Your task to perform on an android device: Open Youtube and go to the subscriptions tab Image 0: 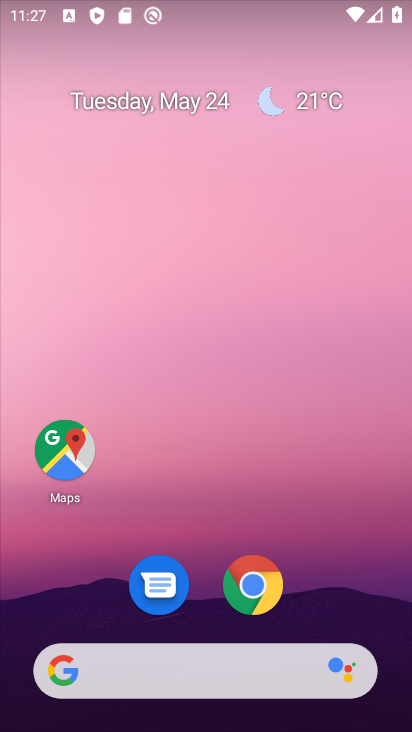
Step 0: drag from (313, 549) to (336, 22)
Your task to perform on an android device: Open Youtube and go to the subscriptions tab Image 1: 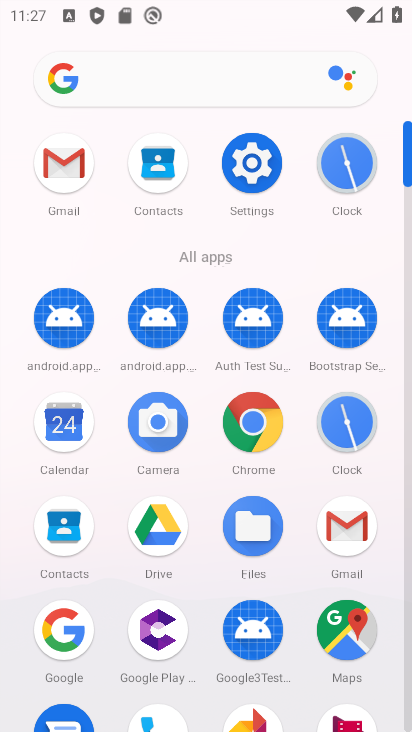
Step 1: drag from (310, 540) to (339, 113)
Your task to perform on an android device: Open Youtube and go to the subscriptions tab Image 2: 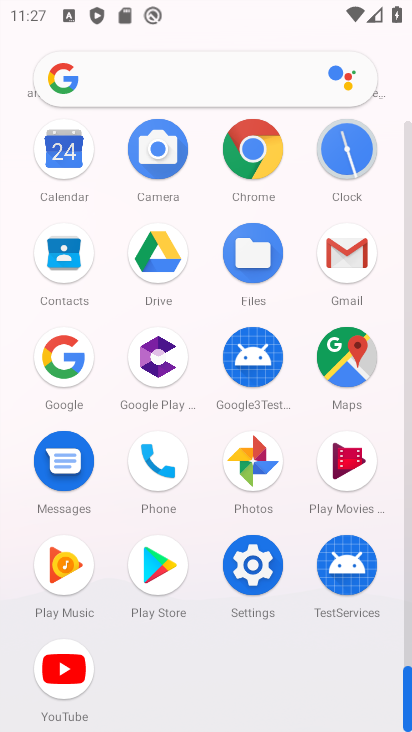
Step 2: click (71, 672)
Your task to perform on an android device: Open Youtube and go to the subscriptions tab Image 3: 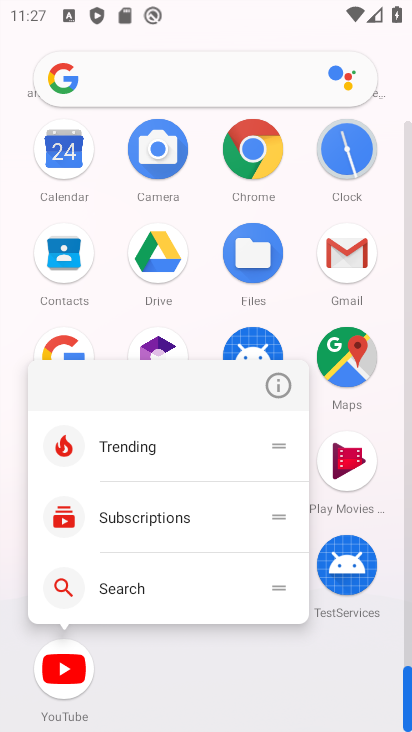
Step 3: click (71, 669)
Your task to perform on an android device: Open Youtube and go to the subscriptions tab Image 4: 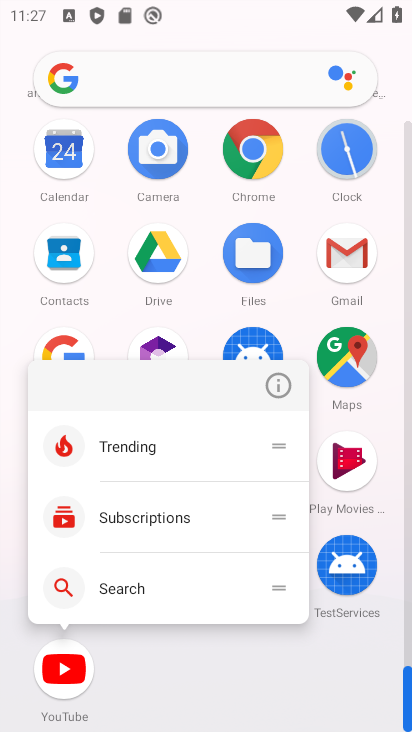
Step 4: click (71, 669)
Your task to perform on an android device: Open Youtube and go to the subscriptions tab Image 5: 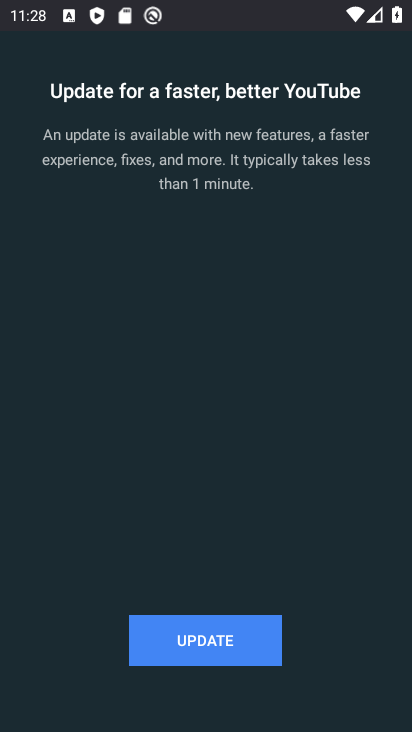
Step 5: click (157, 639)
Your task to perform on an android device: Open Youtube and go to the subscriptions tab Image 6: 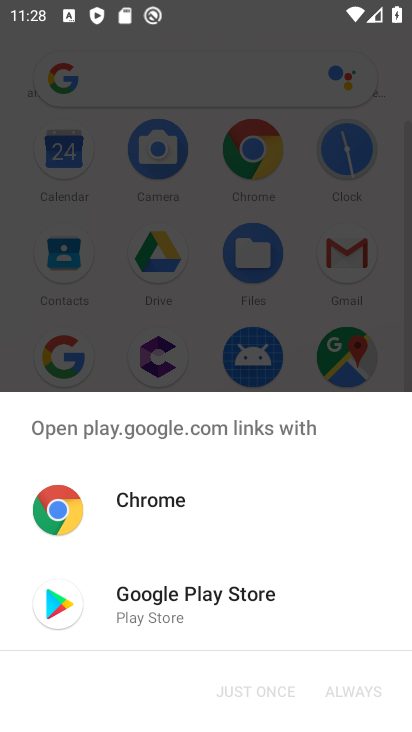
Step 6: click (167, 609)
Your task to perform on an android device: Open Youtube and go to the subscriptions tab Image 7: 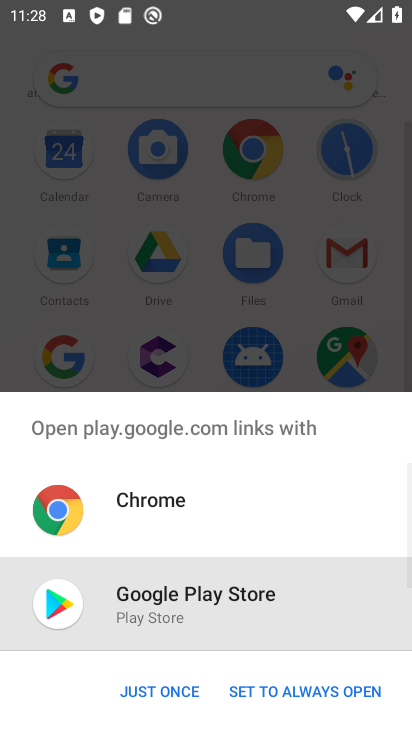
Step 7: click (162, 688)
Your task to perform on an android device: Open Youtube and go to the subscriptions tab Image 8: 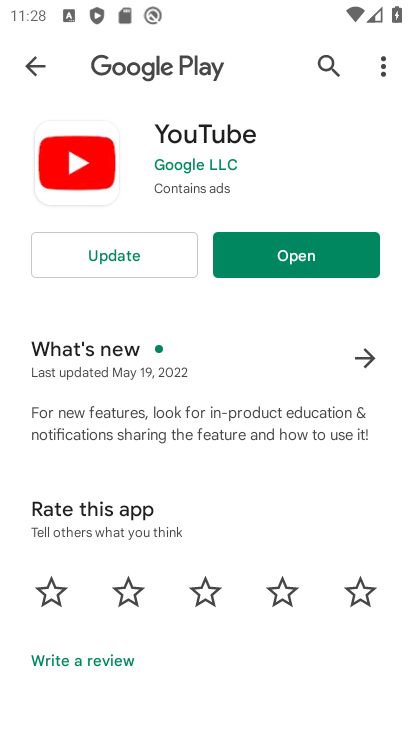
Step 8: click (150, 255)
Your task to perform on an android device: Open Youtube and go to the subscriptions tab Image 9: 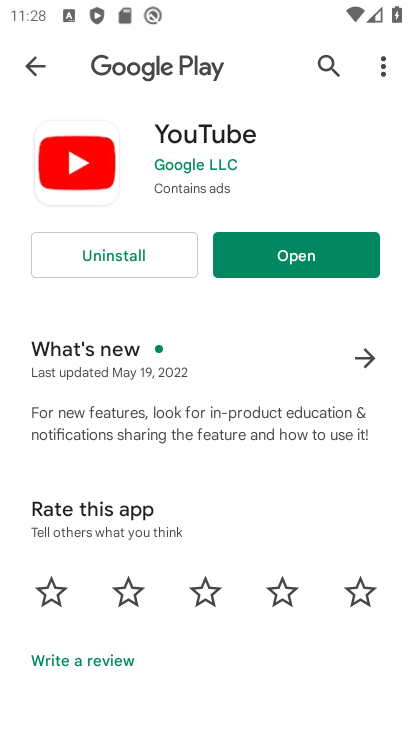
Step 9: click (355, 255)
Your task to perform on an android device: Open Youtube and go to the subscriptions tab Image 10: 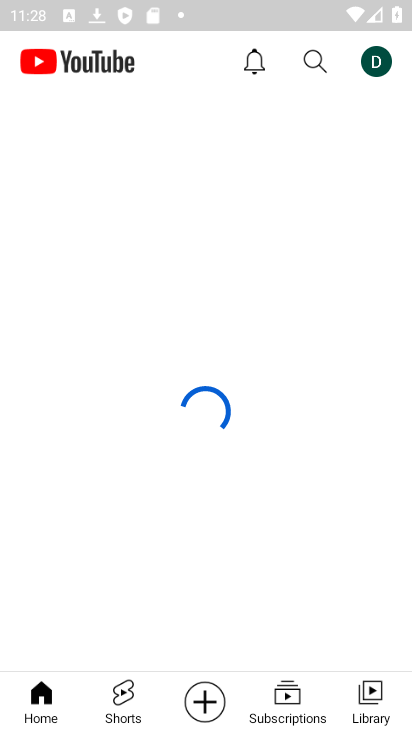
Step 10: click (285, 695)
Your task to perform on an android device: Open Youtube and go to the subscriptions tab Image 11: 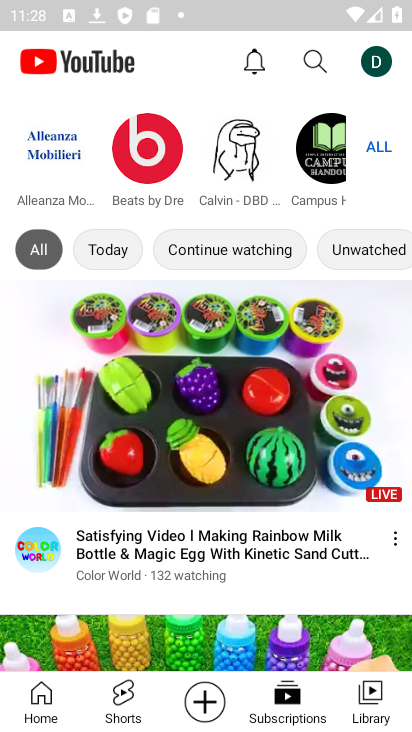
Step 11: task complete